Your task to perform on an android device: turn off translation in the chrome app Image 0: 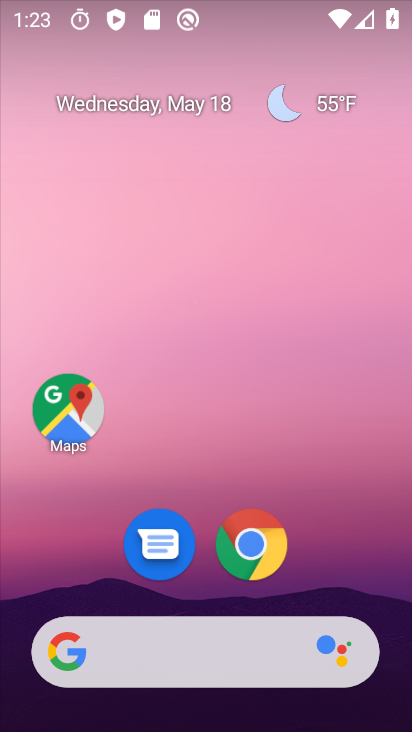
Step 0: click (260, 537)
Your task to perform on an android device: turn off translation in the chrome app Image 1: 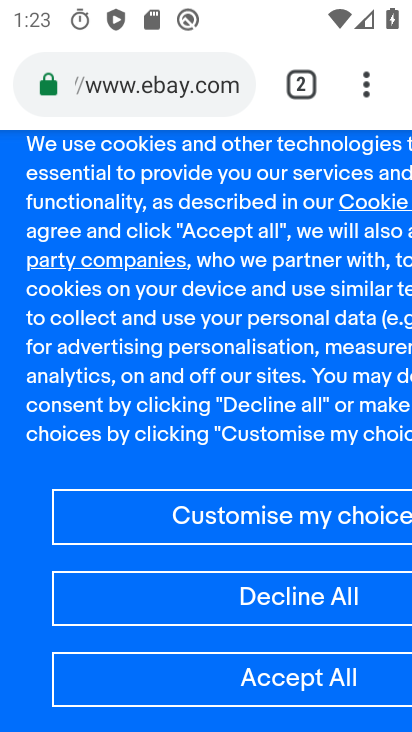
Step 1: click (371, 80)
Your task to perform on an android device: turn off translation in the chrome app Image 2: 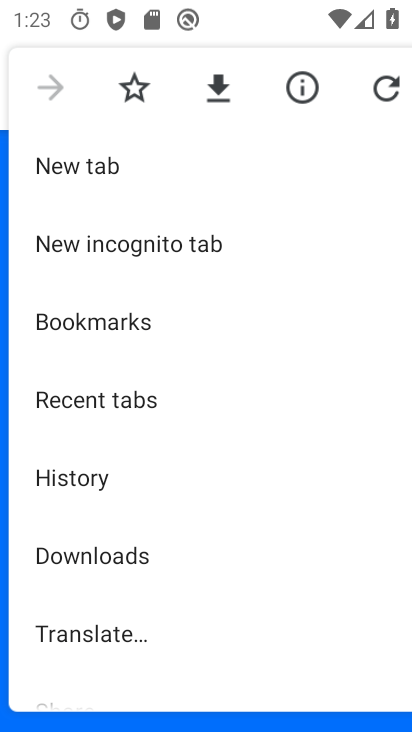
Step 2: drag from (178, 608) to (186, 420)
Your task to perform on an android device: turn off translation in the chrome app Image 3: 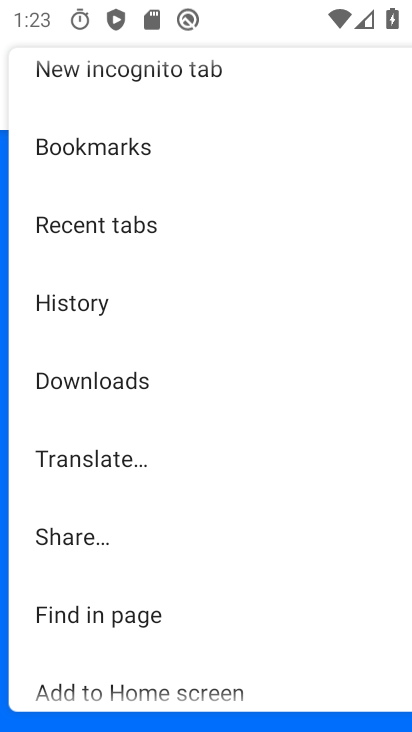
Step 3: drag from (161, 640) to (144, 371)
Your task to perform on an android device: turn off translation in the chrome app Image 4: 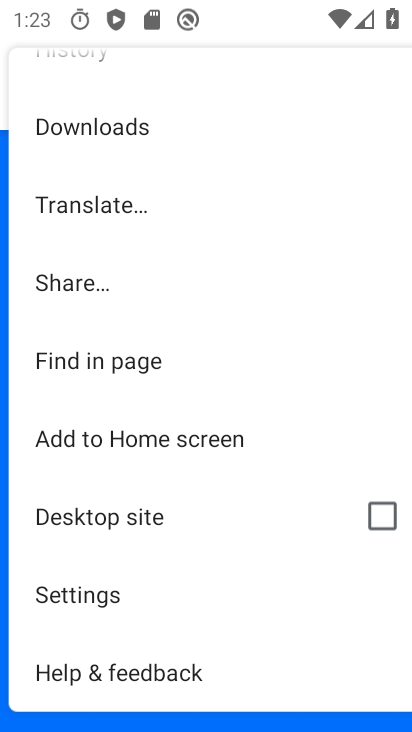
Step 4: click (110, 585)
Your task to perform on an android device: turn off translation in the chrome app Image 5: 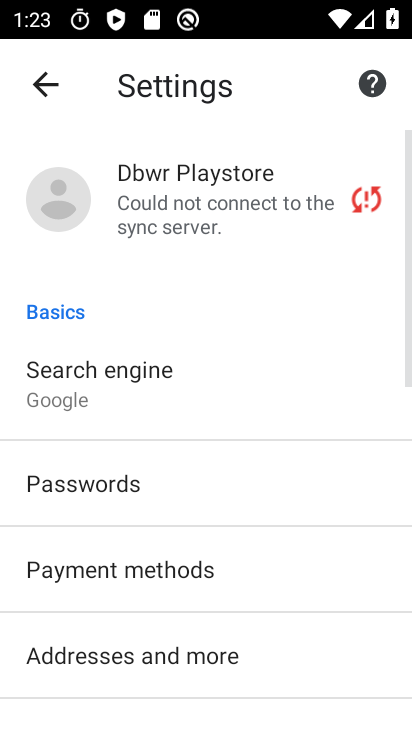
Step 5: drag from (237, 610) to (205, 365)
Your task to perform on an android device: turn off translation in the chrome app Image 6: 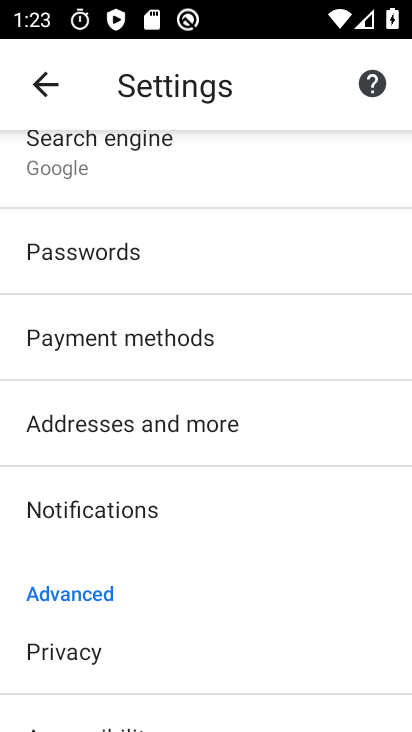
Step 6: drag from (180, 625) to (149, 336)
Your task to perform on an android device: turn off translation in the chrome app Image 7: 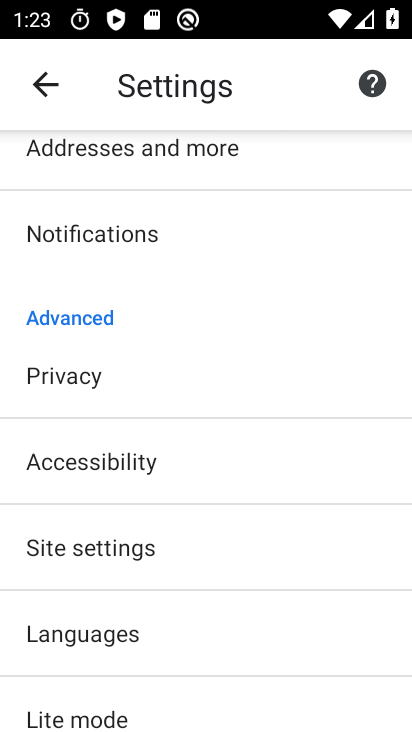
Step 7: click (124, 642)
Your task to perform on an android device: turn off translation in the chrome app Image 8: 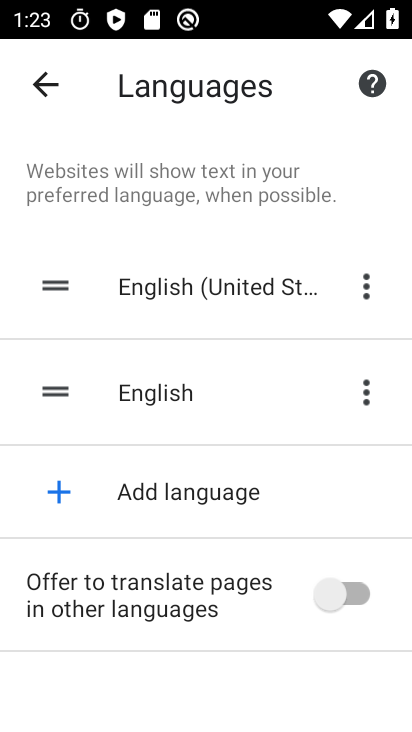
Step 8: task complete